Your task to perform on an android device: Open Chrome and go to settings Image 0: 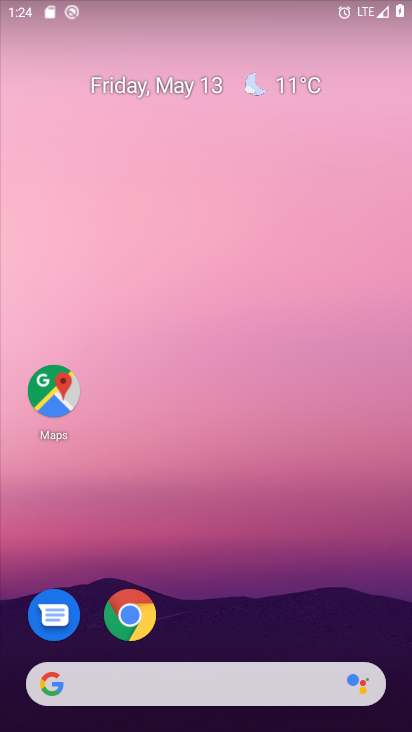
Step 0: click (136, 614)
Your task to perform on an android device: Open Chrome and go to settings Image 1: 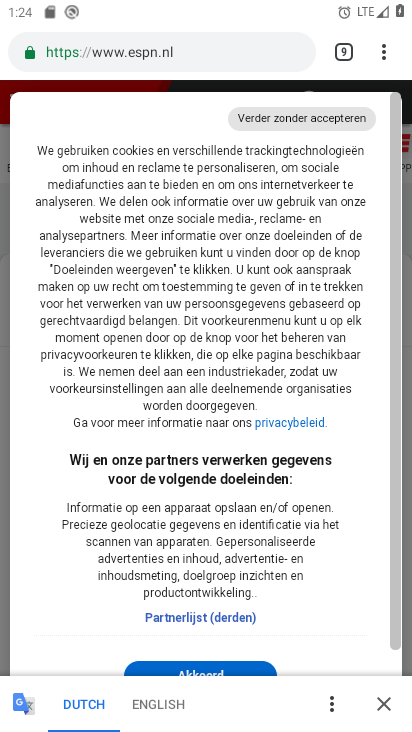
Step 1: click (381, 45)
Your task to perform on an android device: Open Chrome and go to settings Image 2: 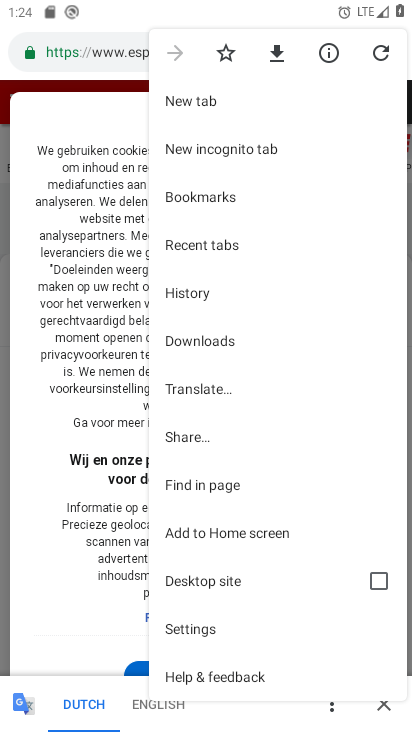
Step 2: click (242, 623)
Your task to perform on an android device: Open Chrome and go to settings Image 3: 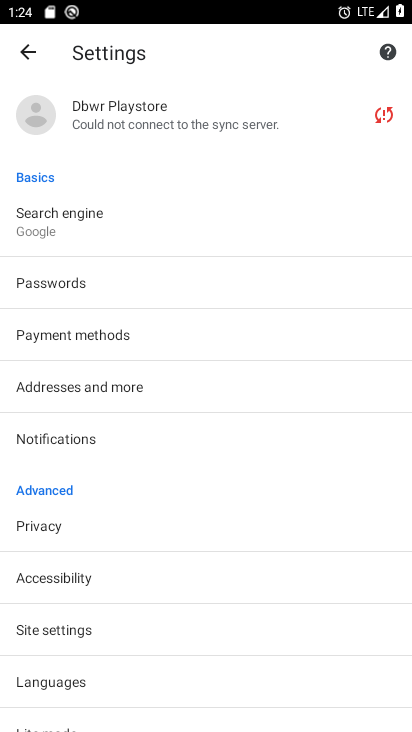
Step 3: task complete